Your task to perform on an android device: clear all cookies in the chrome app Image 0: 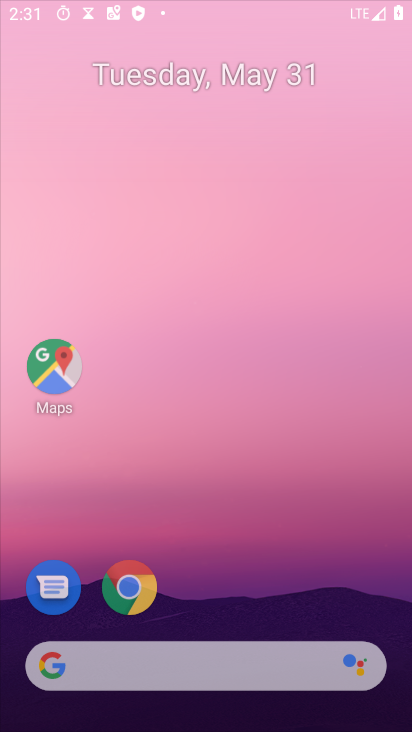
Step 0: press home button
Your task to perform on an android device: clear all cookies in the chrome app Image 1: 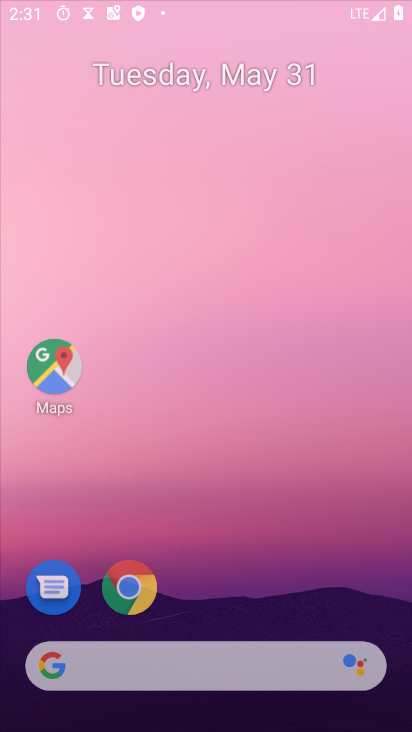
Step 1: click (251, 21)
Your task to perform on an android device: clear all cookies in the chrome app Image 2: 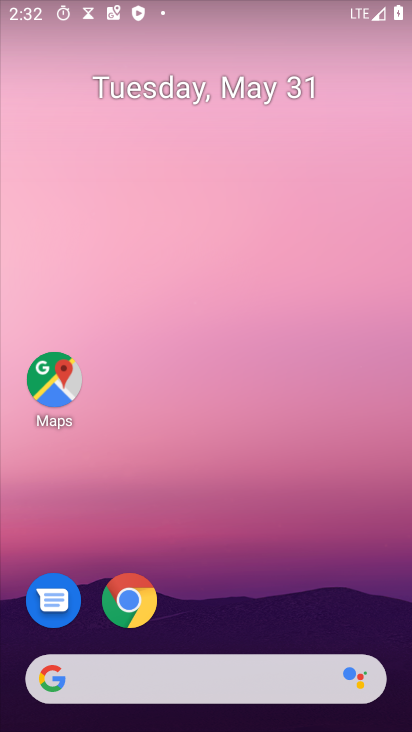
Step 2: click (123, 602)
Your task to perform on an android device: clear all cookies in the chrome app Image 3: 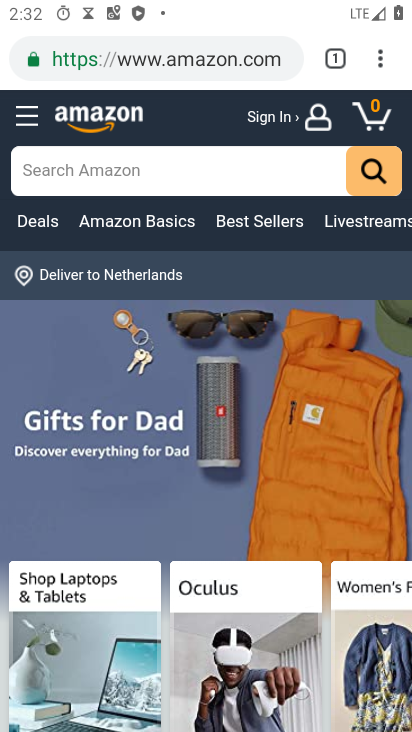
Step 3: click (383, 52)
Your task to perform on an android device: clear all cookies in the chrome app Image 4: 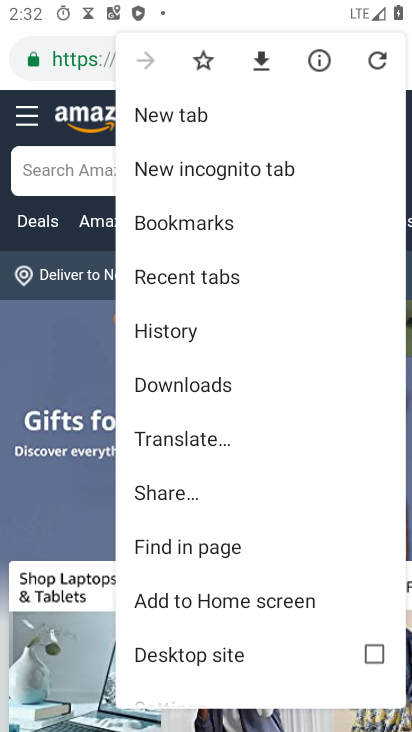
Step 4: click (203, 326)
Your task to perform on an android device: clear all cookies in the chrome app Image 5: 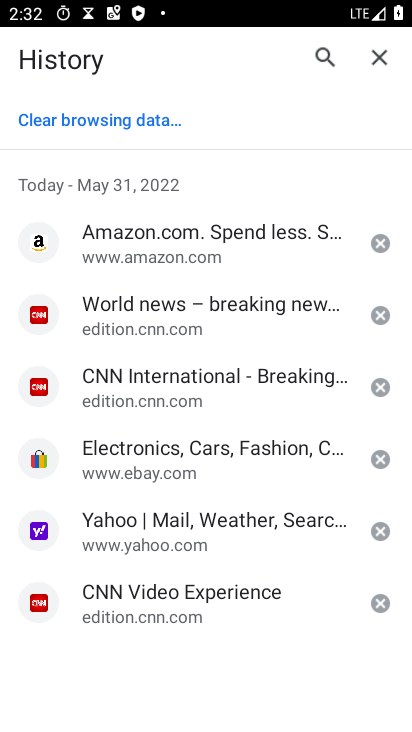
Step 5: click (91, 118)
Your task to perform on an android device: clear all cookies in the chrome app Image 6: 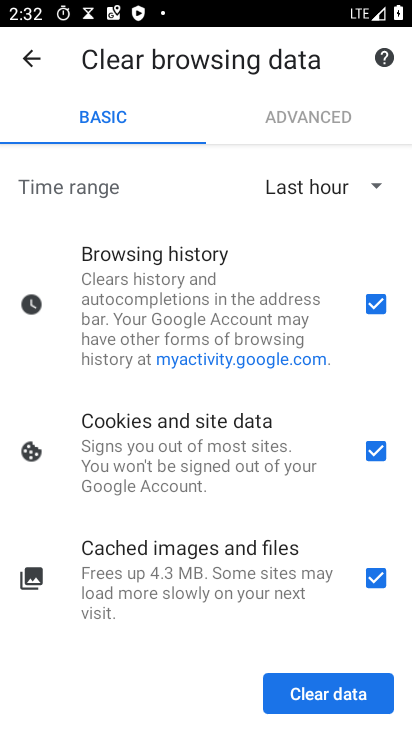
Step 6: click (371, 580)
Your task to perform on an android device: clear all cookies in the chrome app Image 7: 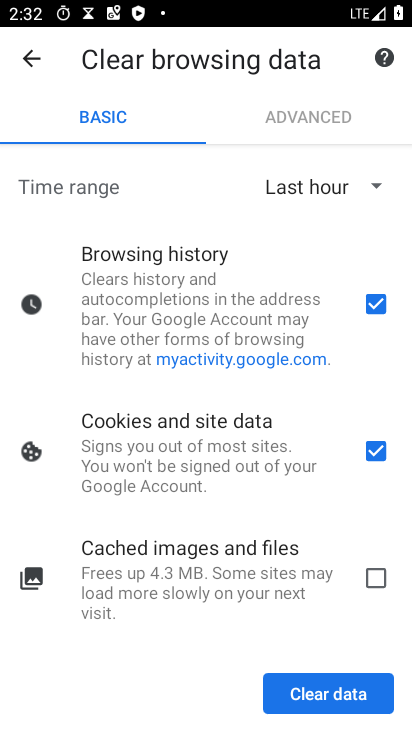
Step 7: click (369, 300)
Your task to perform on an android device: clear all cookies in the chrome app Image 8: 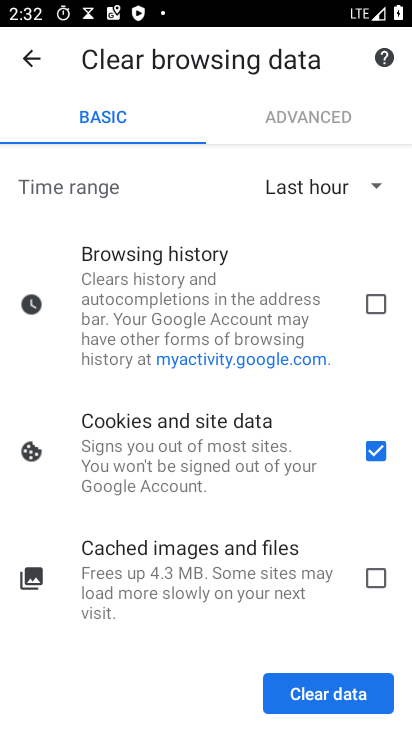
Step 8: click (378, 576)
Your task to perform on an android device: clear all cookies in the chrome app Image 9: 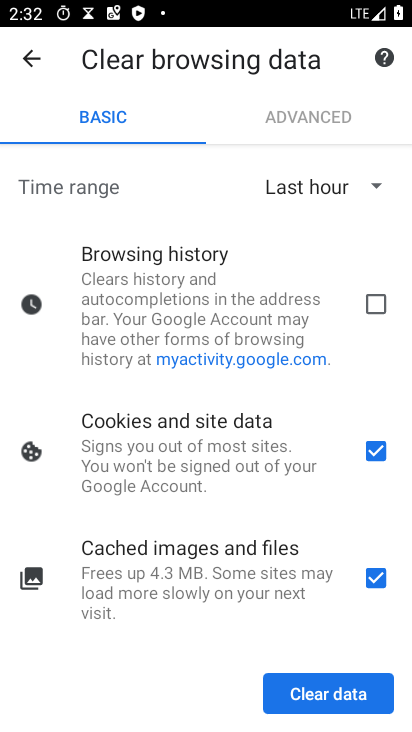
Step 9: click (378, 576)
Your task to perform on an android device: clear all cookies in the chrome app Image 10: 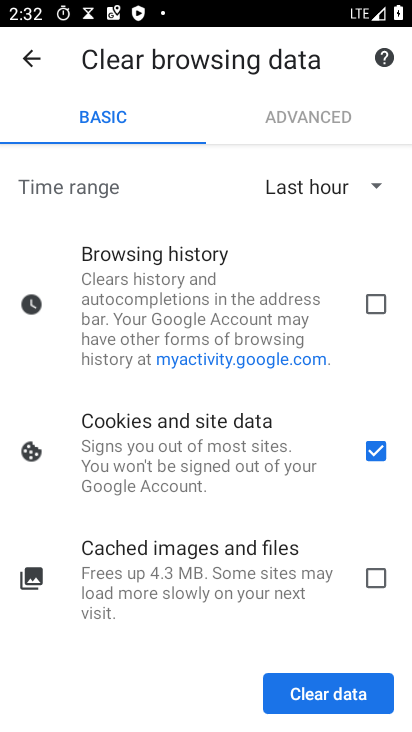
Step 10: click (328, 694)
Your task to perform on an android device: clear all cookies in the chrome app Image 11: 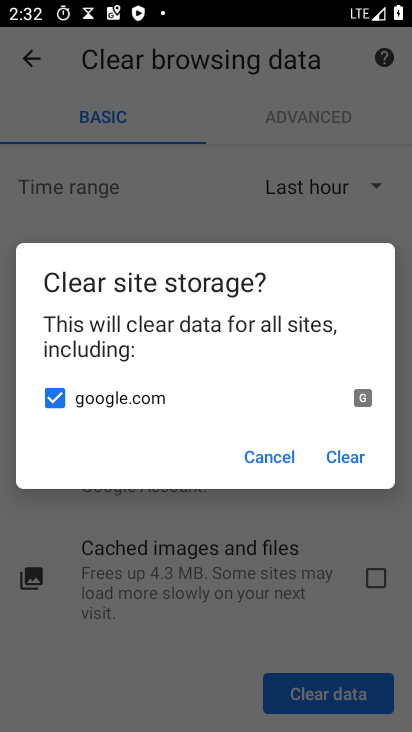
Step 11: click (348, 452)
Your task to perform on an android device: clear all cookies in the chrome app Image 12: 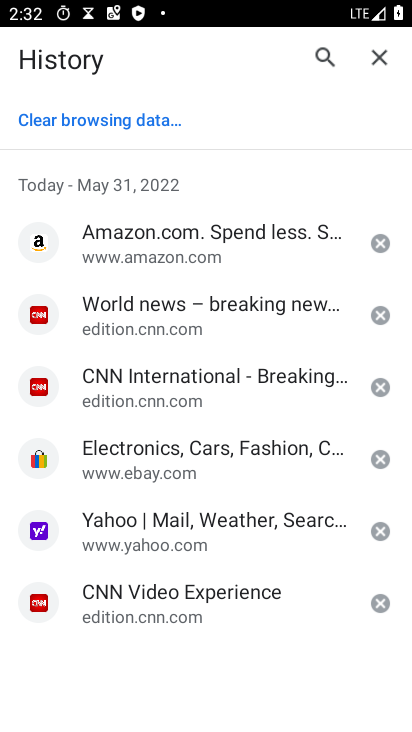
Step 12: task complete